Your task to perform on an android device: Search for "razer blackwidow" on newegg.com, select the first entry, add it to the cart, then select checkout. Image 0: 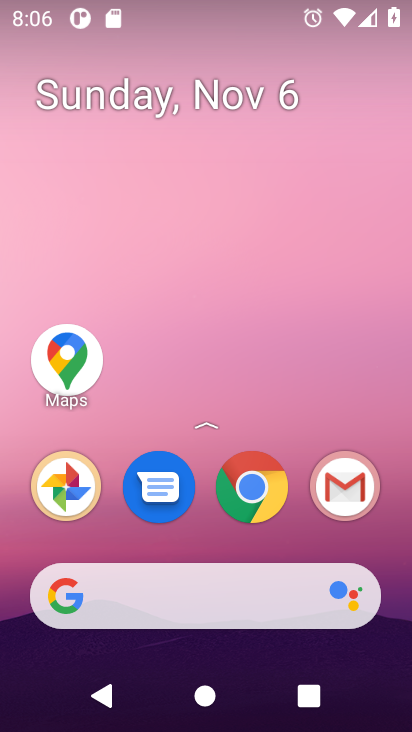
Step 0: click (267, 502)
Your task to perform on an android device: Search for "razer blackwidow" on newegg.com, select the first entry, add it to the cart, then select checkout. Image 1: 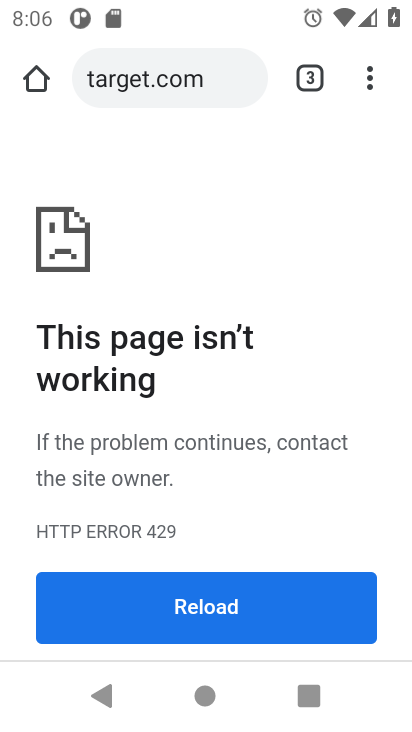
Step 1: task complete